Your task to perform on an android device: Go to Reddit.com Image 0: 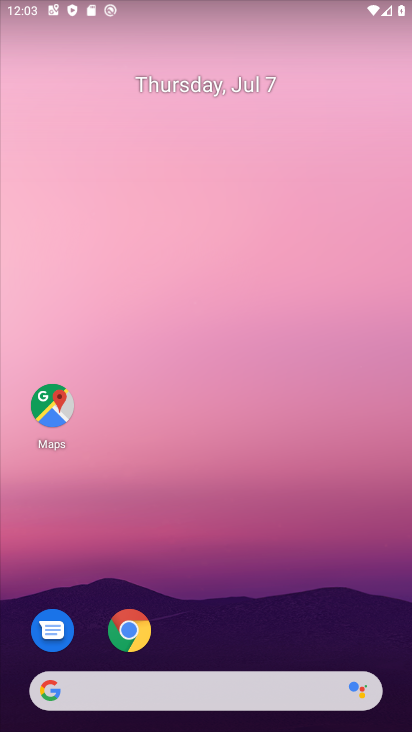
Step 0: click (121, 633)
Your task to perform on an android device: Go to Reddit.com Image 1: 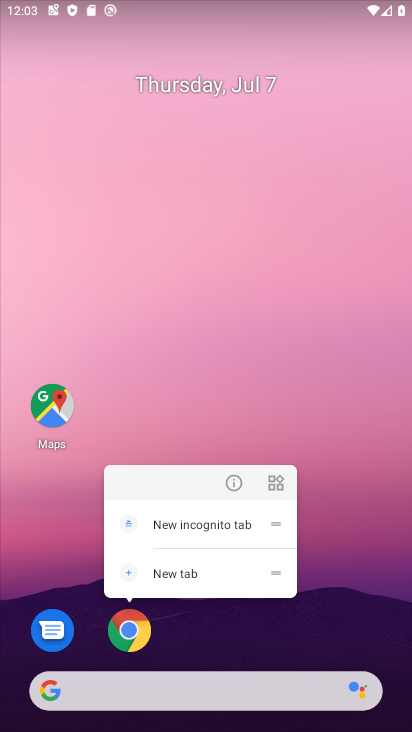
Step 1: click (138, 632)
Your task to perform on an android device: Go to Reddit.com Image 2: 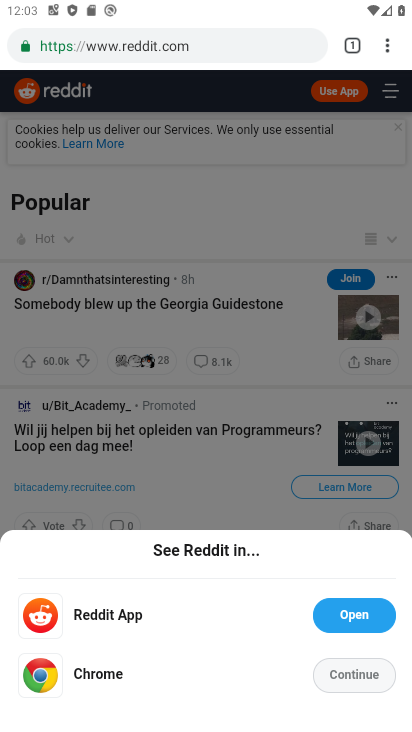
Step 2: click (375, 667)
Your task to perform on an android device: Go to Reddit.com Image 3: 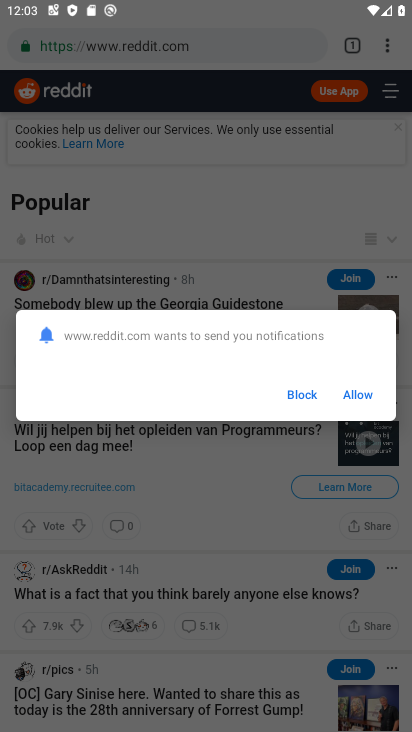
Step 3: task complete